Your task to perform on an android device: Go to settings Image 0: 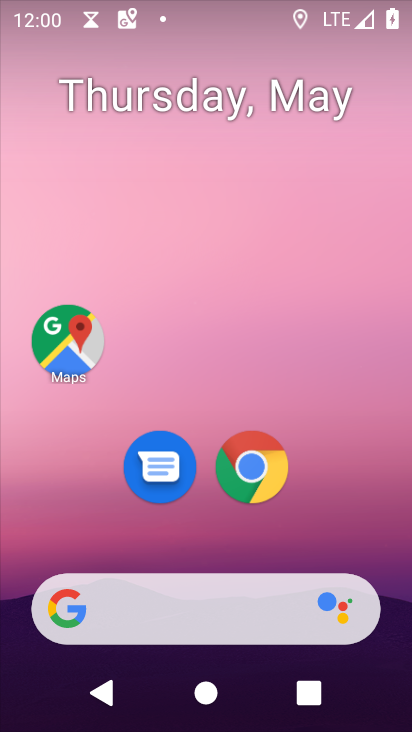
Step 0: drag from (219, 604) to (292, 137)
Your task to perform on an android device: Go to settings Image 1: 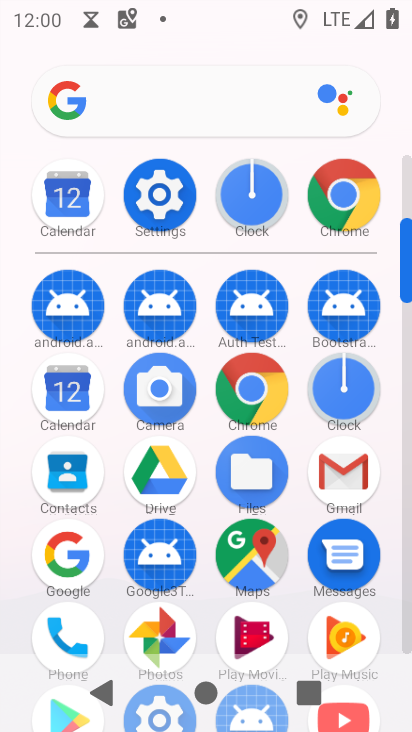
Step 1: click (169, 206)
Your task to perform on an android device: Go to settings Image 2: 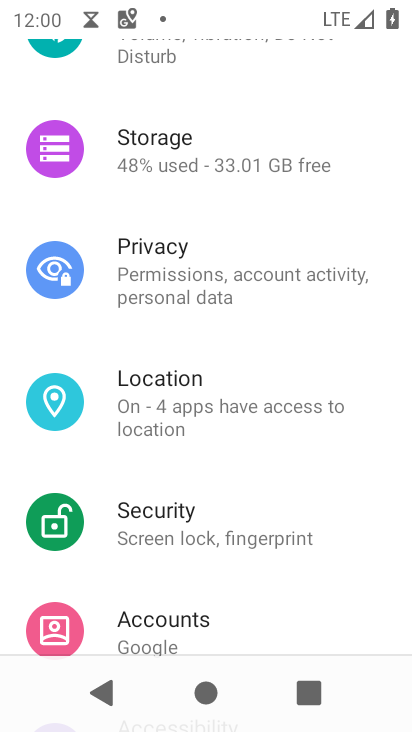
Step 2: task complete